Your task to perform on an android device: turn on notifications settings in the gmail app Image 0: 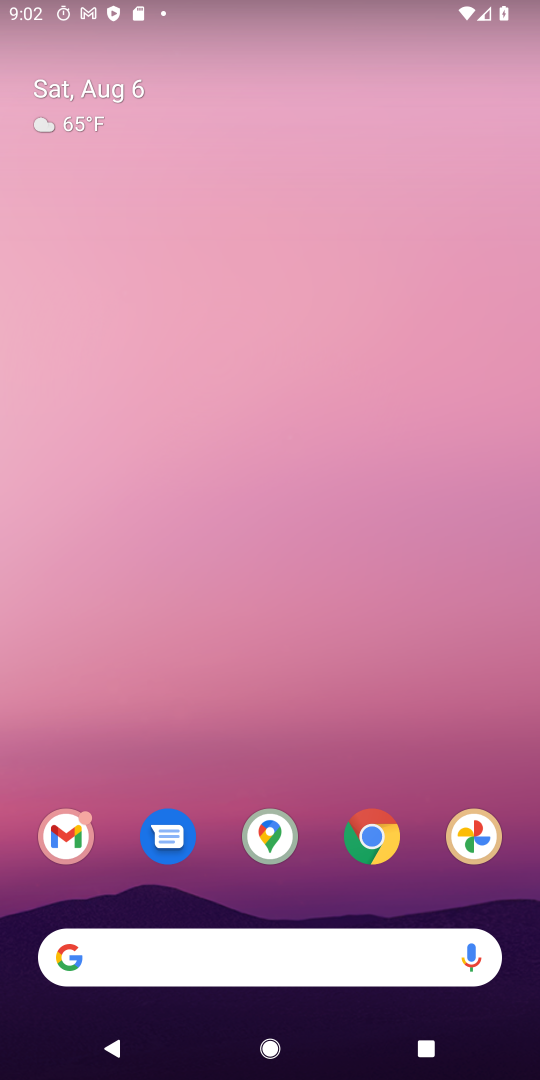
Step 0: drag from (408, 914) to (302, 72)
Your task to perform on an android device: turn on notifications settings in the gmail app Image 1: 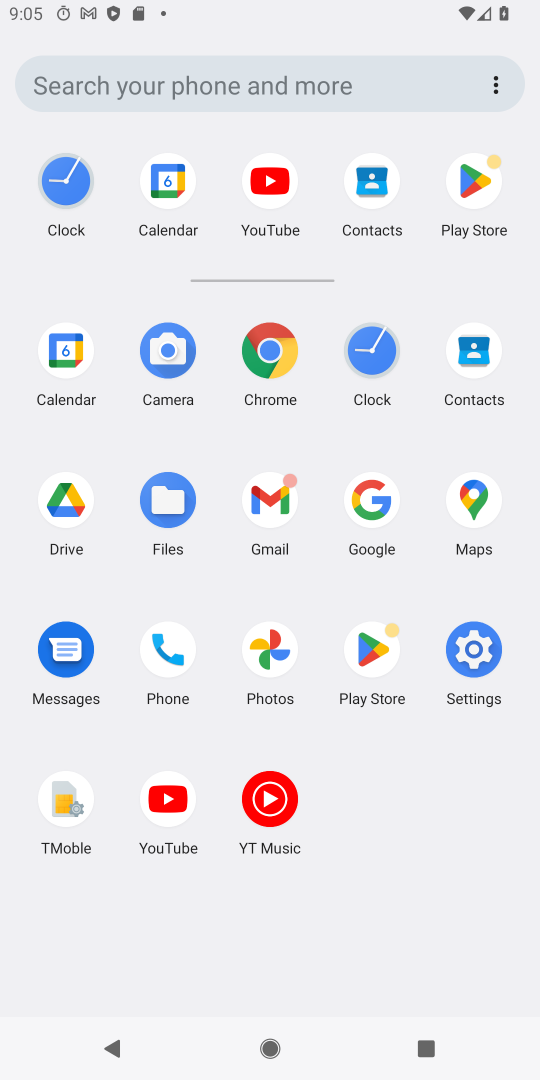
Step 1: click (278, 512)
Your task to perform on an android device: turn on notifications settings in the gmail app Image 2: 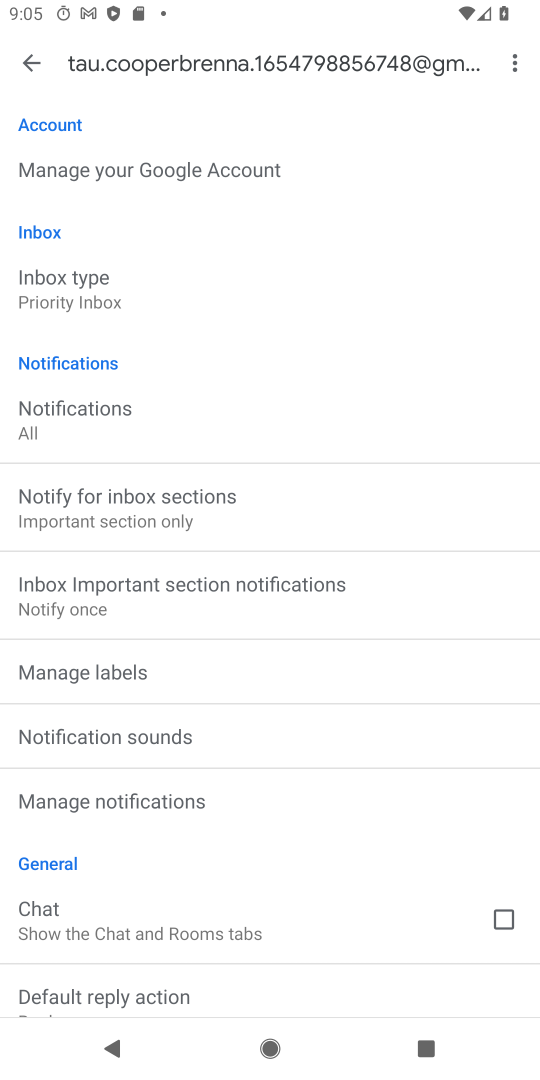
Step 2: click (62, 414)
Your task to perform on an android device: turn on notifications settings in the gmail app Image 3: 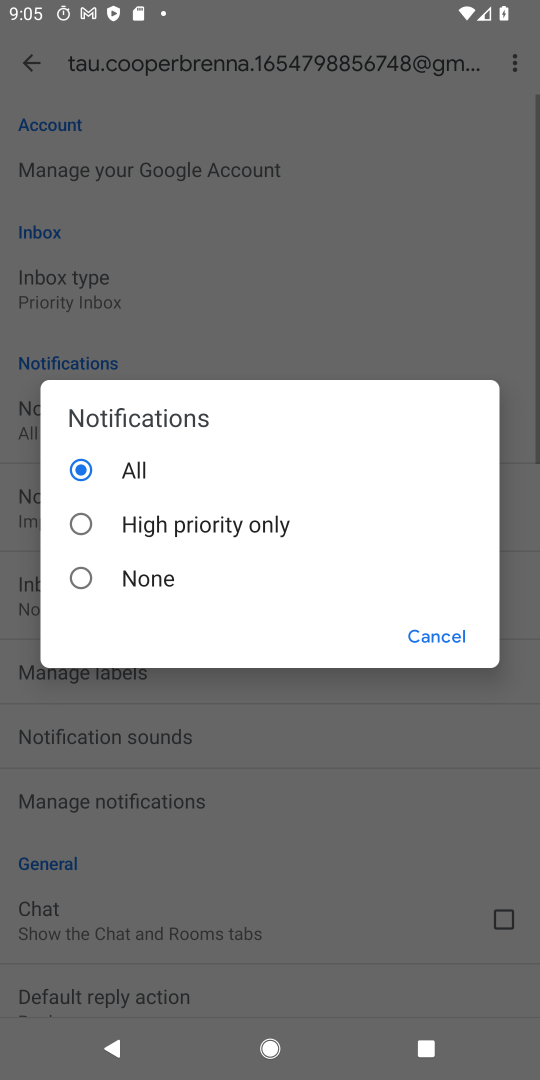
Step 3: click (137, 459)
Your task to perform on an android device: turn on notifications settings in the gmail app Image 4: 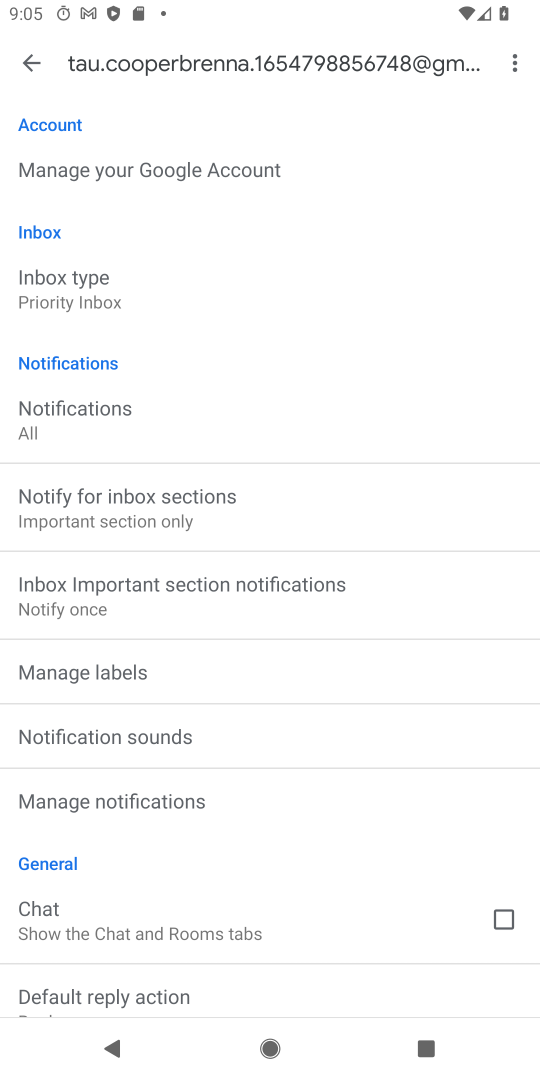
Step 4: task complete